Your task to perform on an android device: Open Google Image 0: 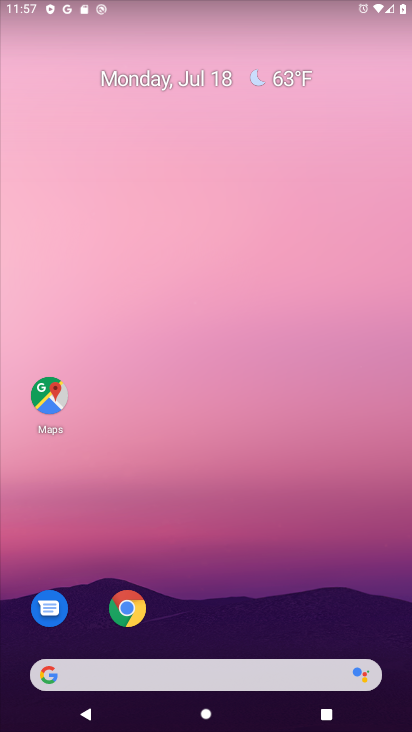
Step 0: drag from (308, 599) to (310, 0)
Your task to perform on an android device: Open Google Image 1: 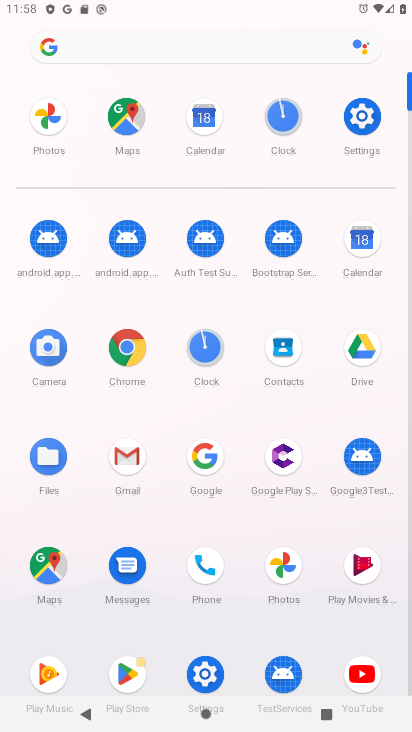
Step 1: click (202, 460)
Your task to perform on an android device: Open Google Image 2: 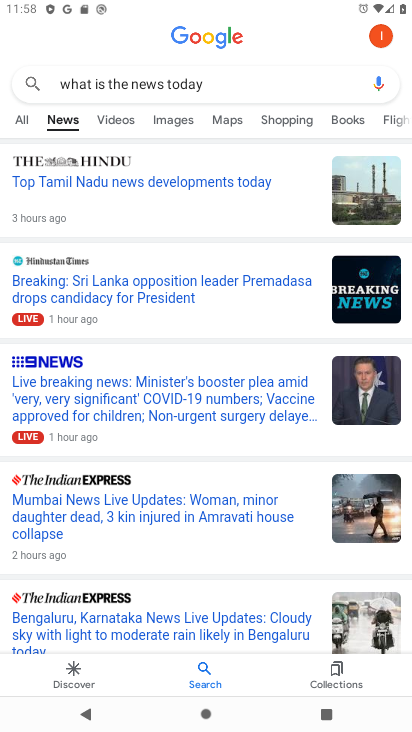
Step 2: task complete